Your task to perform on an android device: Open maps Image 0: 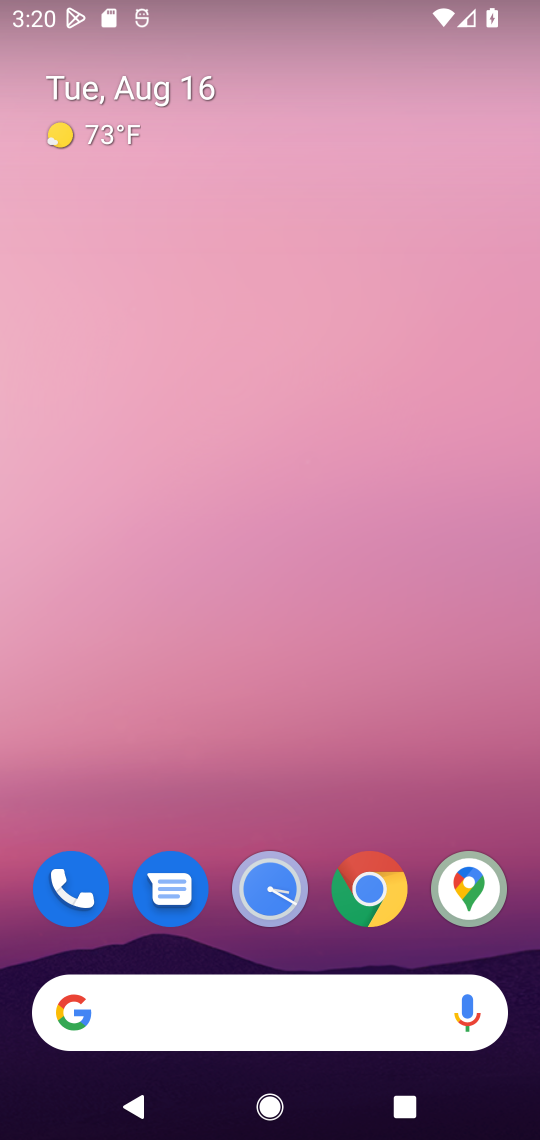
Step 0: drag from (196, 737) to (416, 115)
Your task to perform on an android device: Open maps Image 1: 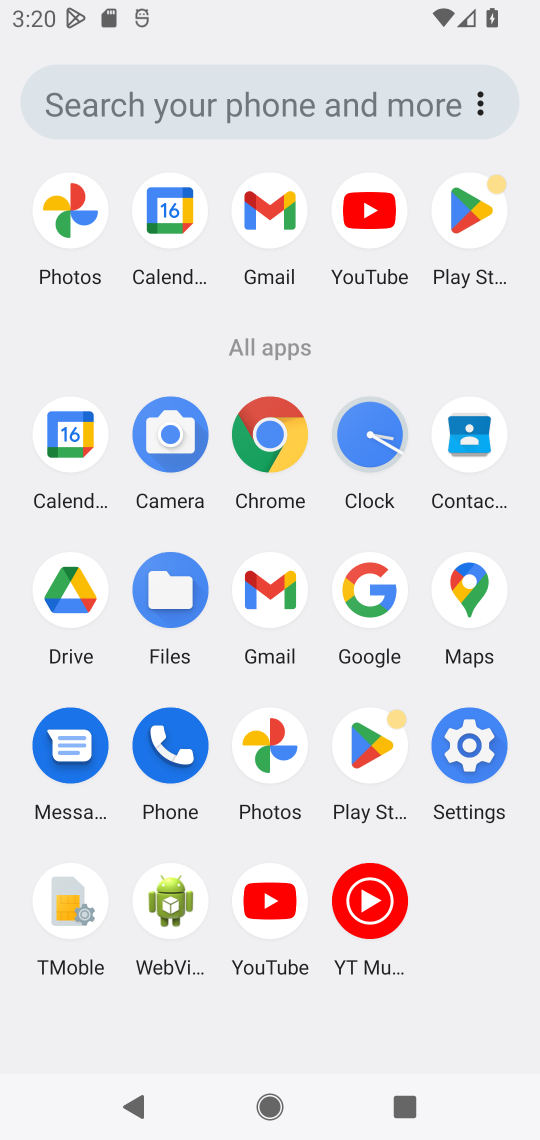
Step 1: click (492, 603)
Your task to perform on an android device: Open maps Image 2: 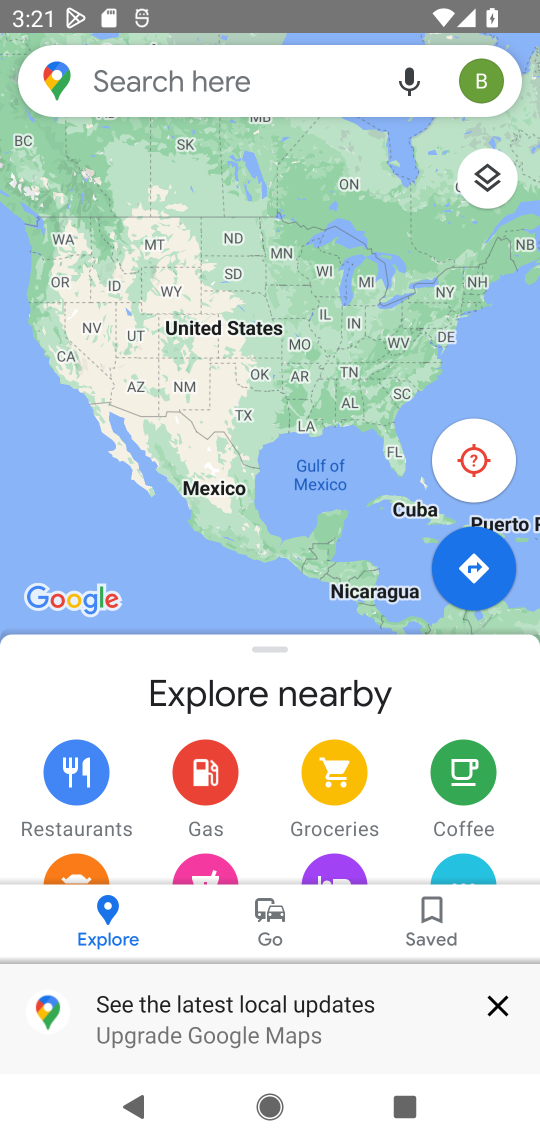
Step 2: task complete